Your task to perform on an android device: Search for Italian restaurants on Maps Image 0: 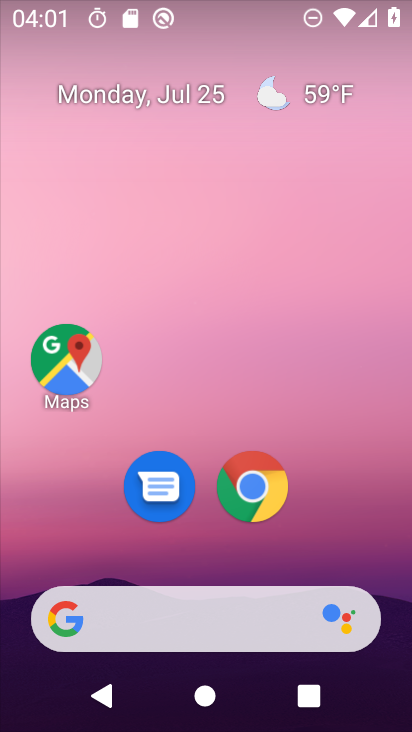
Step 0: click (42, 355)
Your task to perform on an android device: Search for Italian restaurants on Maps Image 1: 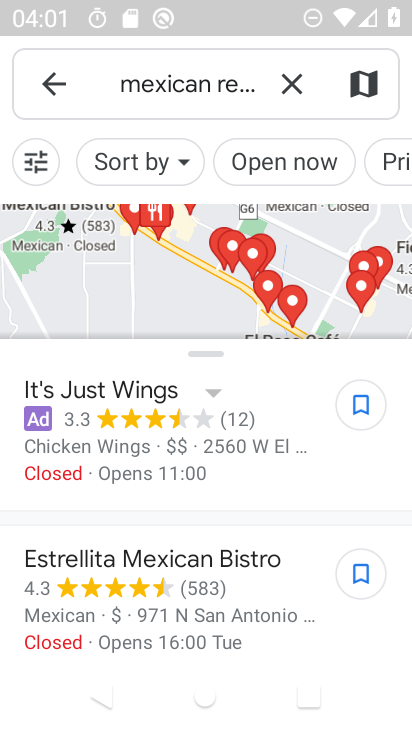
Step 1: click (286, 75)
Your task to perform on an android device: Search for Italian restaurants on Maps Image 2: 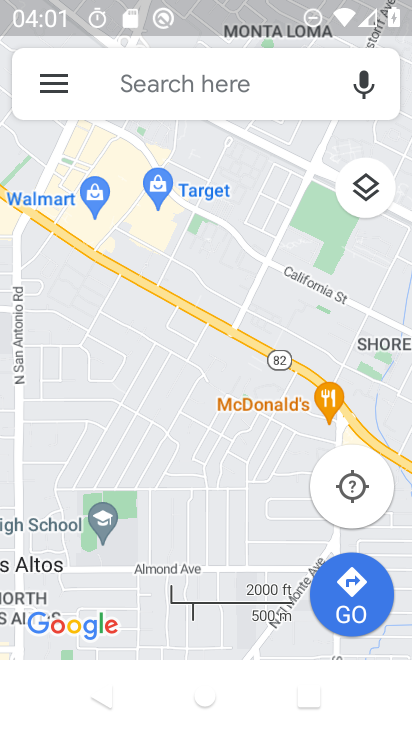
Step 2: click (186, 86)
Your task to perform on an android device: Search for Italian restaurants on Maps Image 3: 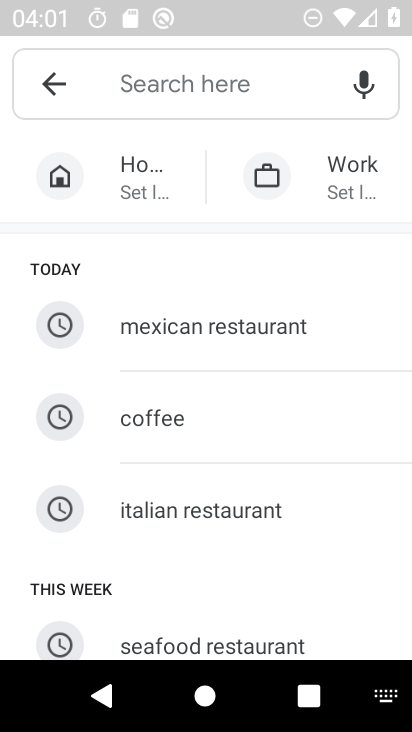
Step 3: click (172, 503)
Your task to perform on an android device: Search for Italian restaurants on Maps Image 4: 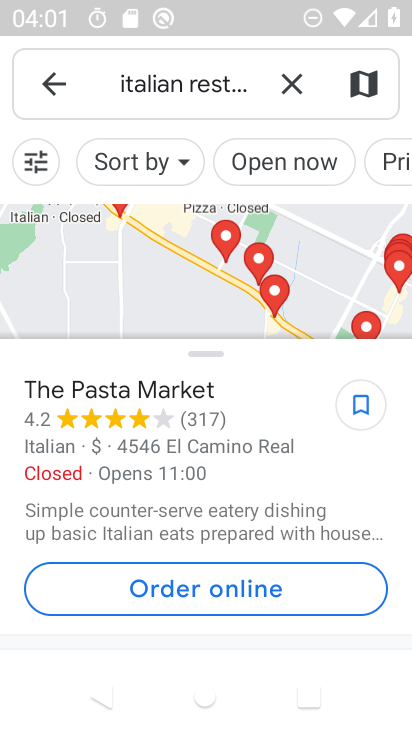
Step 4: task complete